Your task to perform on an android device: set default search engine in the chrome app Image 0: 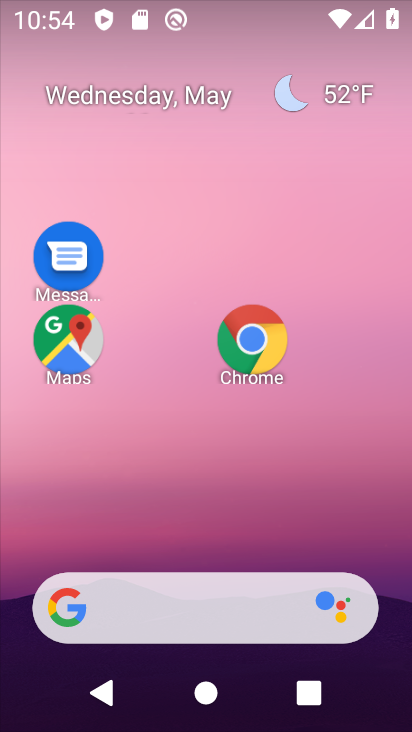
Step 0: click (248, 334)
Your task to perform on an android device: set default search engine in the chrome app Image 1: 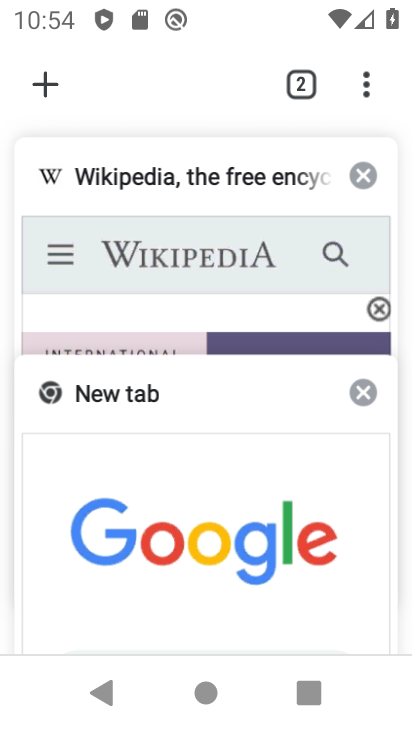
Step 1: press back button
Your task to perform on an android device: set default search engine in the chrome app Image 2: 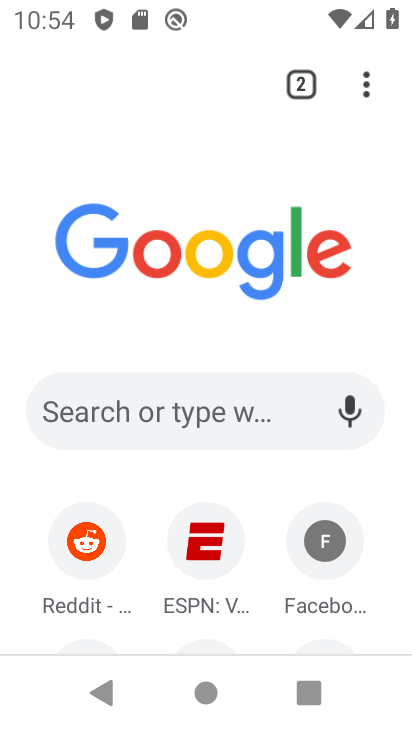
Step 2: click (352, 85)
Your task to perform on an android device: set default search engine in the chrome app Image 3: 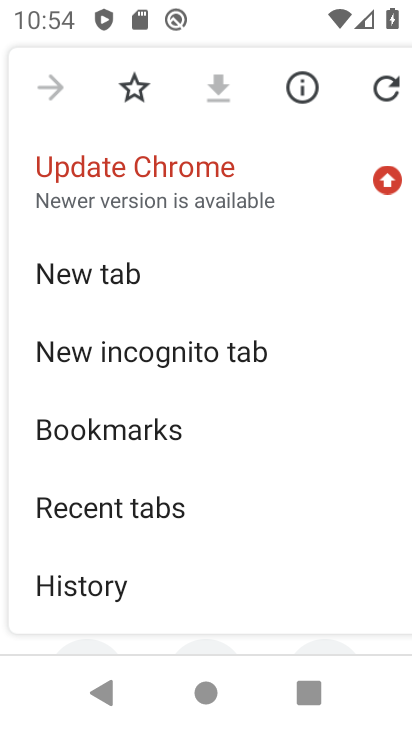
Step 3: drag from (218, 530) to (218, 171)
Your task to perform on an android device: set default search engine in the chrome app Image 4: 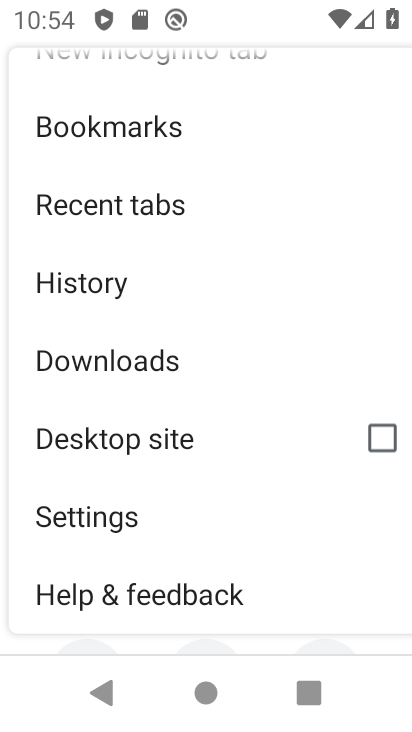
Step 4: drag from (214, 490) to (194, 194)
Your task to perform on an android device: set default search engine in the chrome app Image 5: 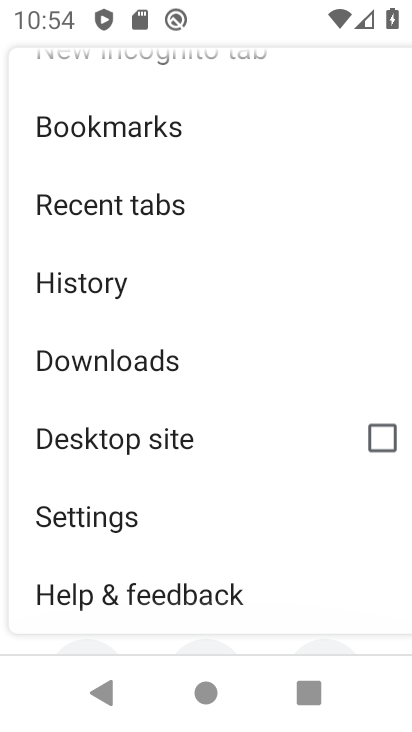
Step 5: click (126, 516)
Your task to perform on an android device: set default search engine in the chrome app Image 6: 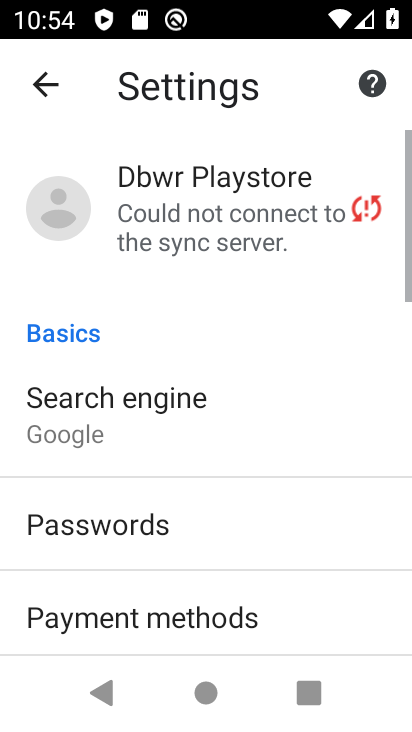
Step 6: click (142, 432)
Your task to perform on an android device: set default search engine in the chrome app Image 7: 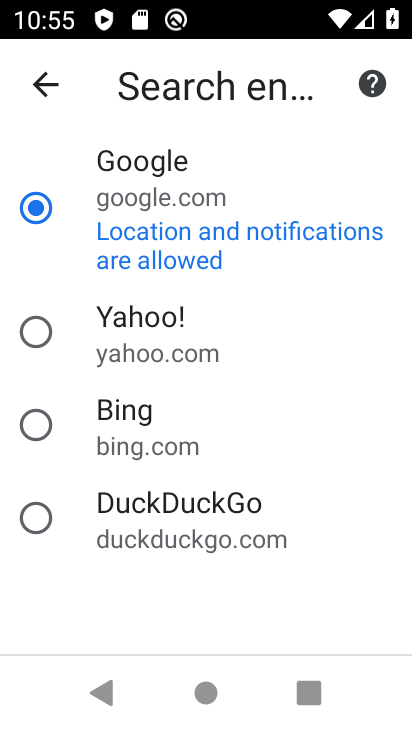
Step 7: task complete